Your task to perform on an android device: Go to battery settings Image 0: 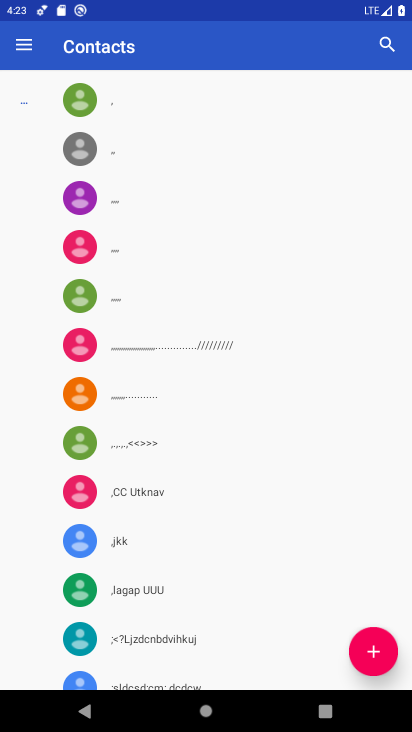
Step 0: press home button
Your task to perform on an android device: Go to battery settings Image 1: 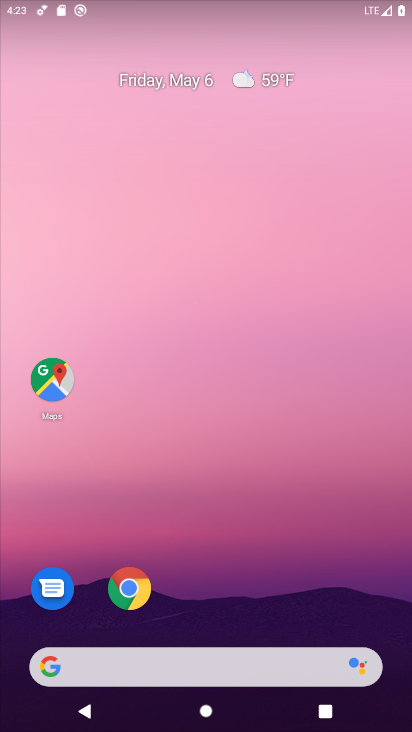
Step 1: drag from (215, 728) to (218, 152)
Your task to perform on an android device: Go to battery settings Image 2: 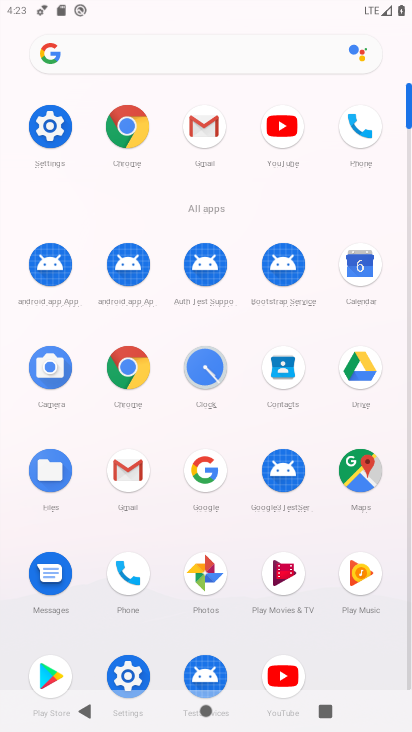
Step 2: click (58, 123)
Your task to perform on an android device: Go to battery settings Image 3: 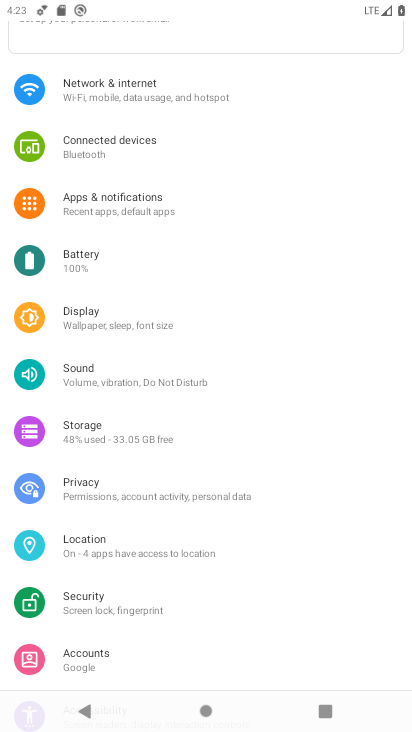
Step 3: click (88, 259)
Your task to perform on an android device: Go to battery settings Image 4: 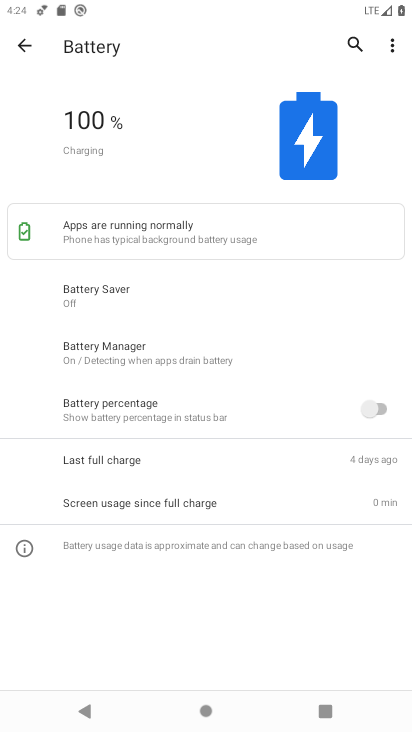
Step 4: task complete